Your task to perform on an android device: set the timer Image 0: 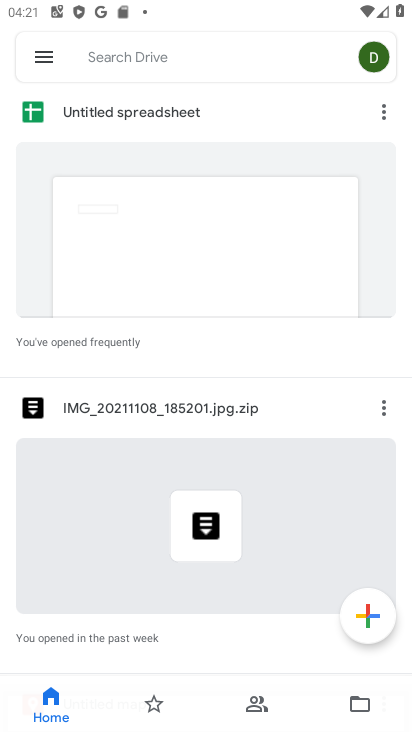
Step 0: press home button
Your task to perform on an android device: set the timer Image 1: 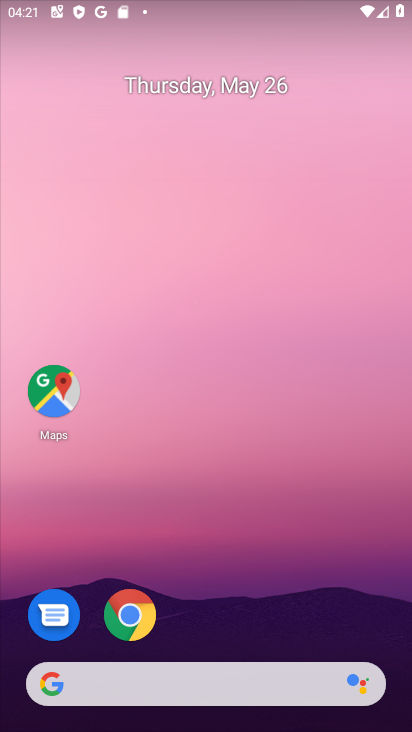
Step 1: drag from (208, 628) to (224, 52)
Your task to perform on an android device: set the timer Image 2: 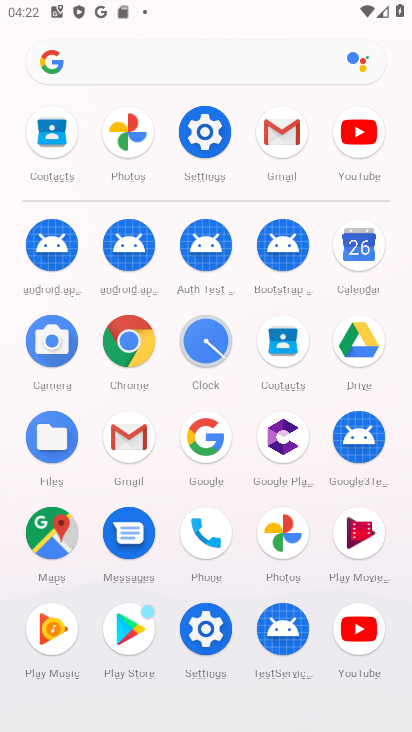
Step 2: click (209, 338)
Your task to perform on an android device: set the timer Image 3: 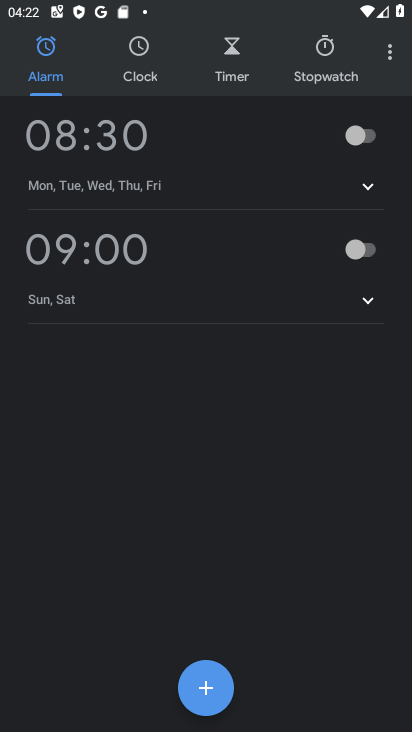
Step 3: click (237, 78)
Your task to perform on an android device: set the timer Image 4: 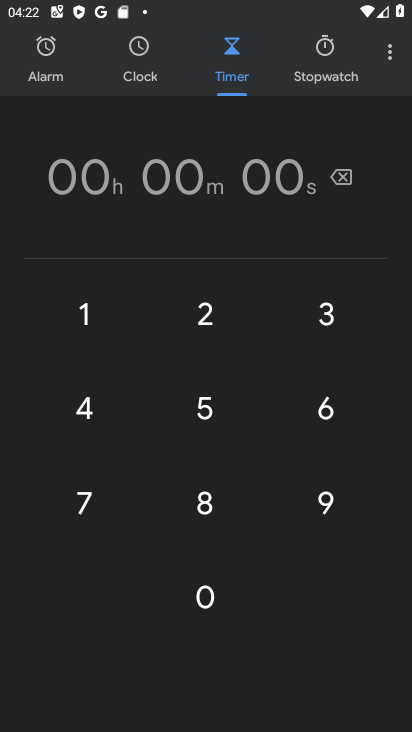
Step 4: click (200, 328)
Your task to perform on an android device: set the timer Image 5: 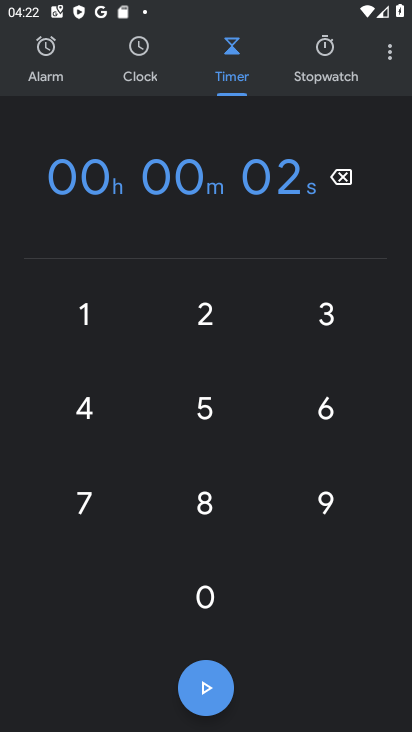
Step 5: click (210, 593)
Your task to perform on an android device: set the timer Image 6: 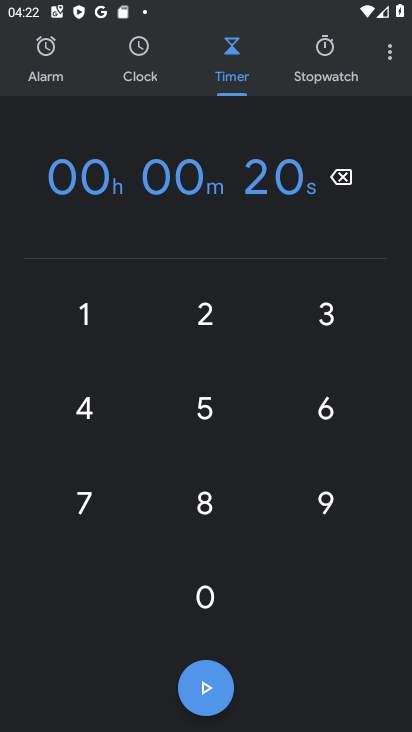
Step 6: click (201, 332)
Your task to perform on an android device: set the timer Image 7: 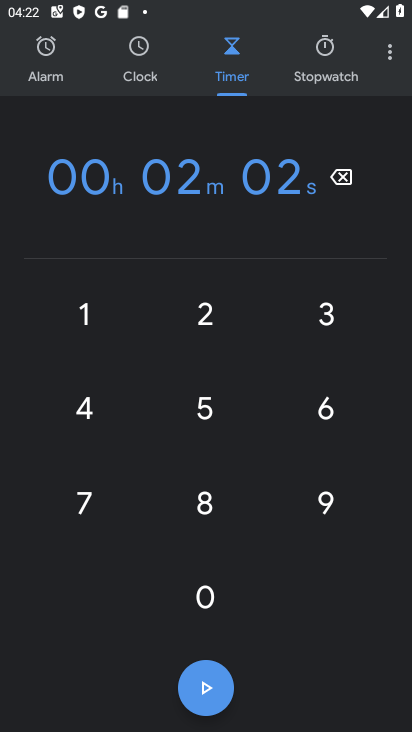
Step 7: click (212, 590)
Your task to perform on an android device: set the timer Image 8: 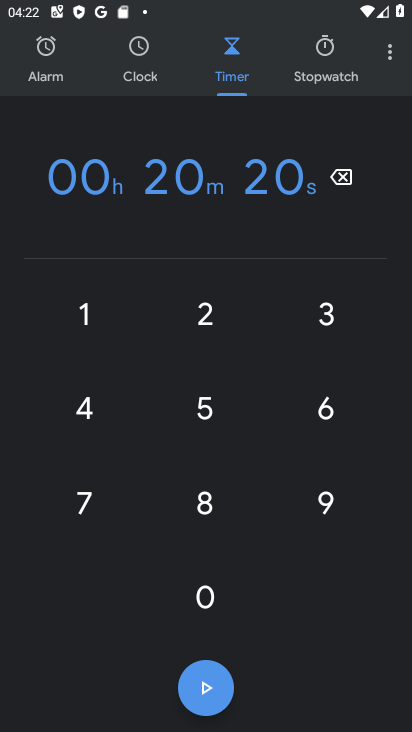
Step 8: click (207, 689)
Your task to perform on an android device: set the timer Image 9: 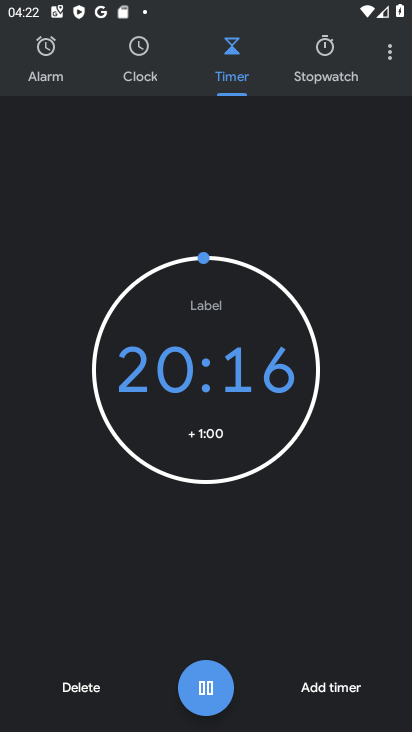
Step 9: task complete